Your task to perform on an android device: turn on sleep mode Image 0: 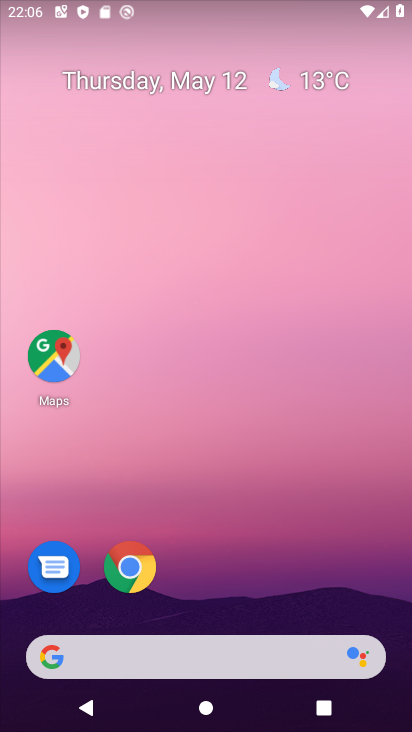
Step 0: drag from (240, 617) to (231, 70)
Your task to perform on an android device: turn on sleep mode Image 1: 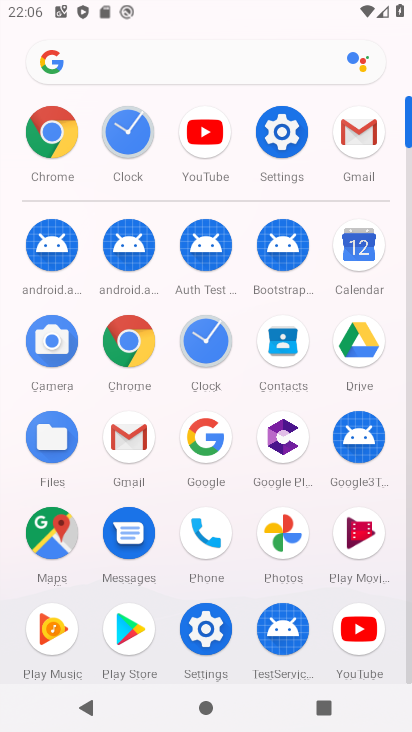
Step 1: click (277, 123)
Your task to perform on an android device: turn on sleep mode Image 2: 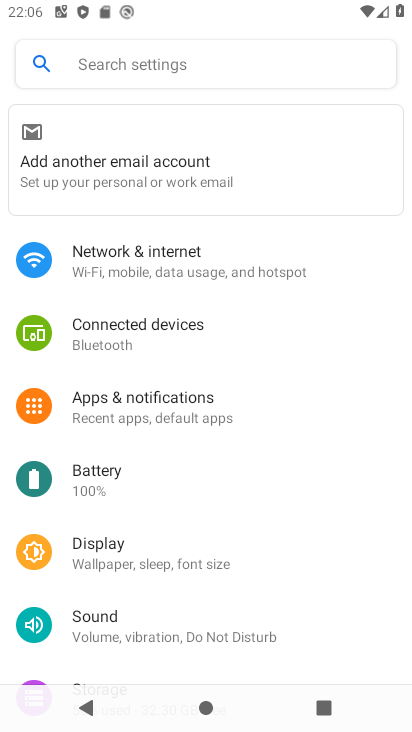
Step 2: click (131, 545)
Your task to perform on an android device: turn on sleep mode Image 3: 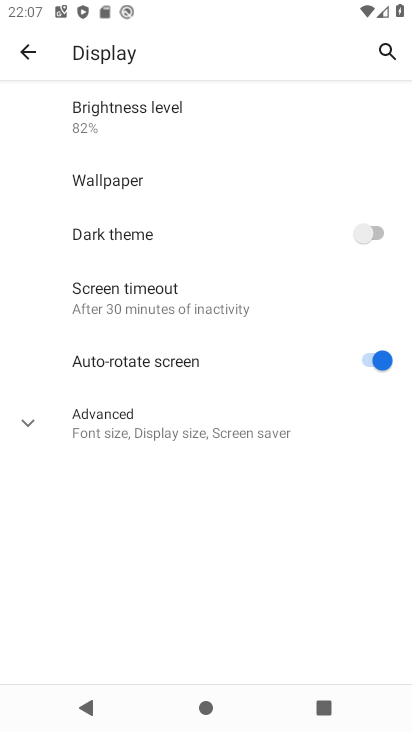
Step 3: click (38, 413)
Your task to perform on an android device: turn on sleep mode Image 4: 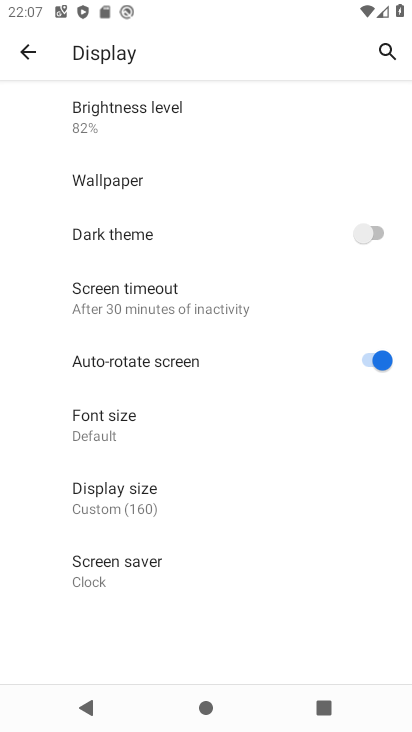
Step 4: task complete